Your task to perform on an android device: Open Chrome and go to the settings page Image 0: 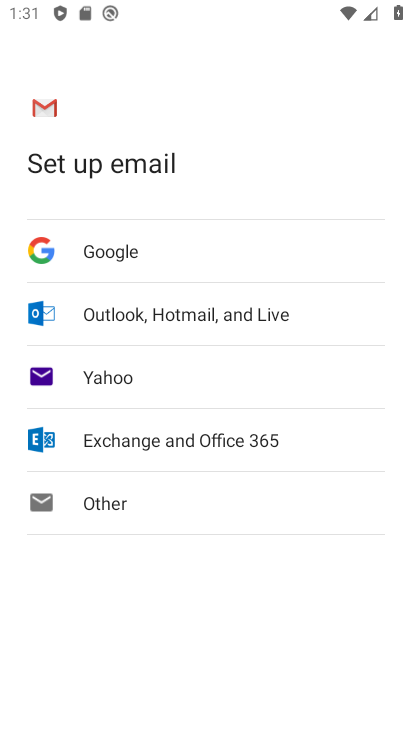
Step 0: press home button
Your task to perform on an android device: Open Chrome and go to the settings page Image 1: 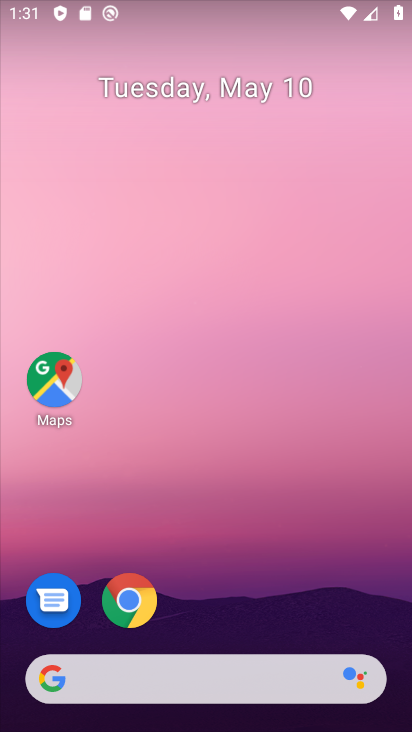
Step 1: click (133, 626)
Your task to perform on an android device: Open Chrome and go to the settings page Image 2: 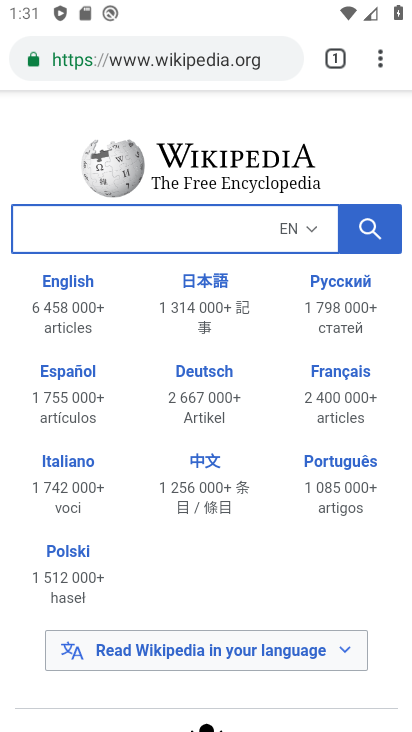
Step 2: click (390, 67)
Your task to perform on an android device: Open Chrome and go to the settings page Image 3: 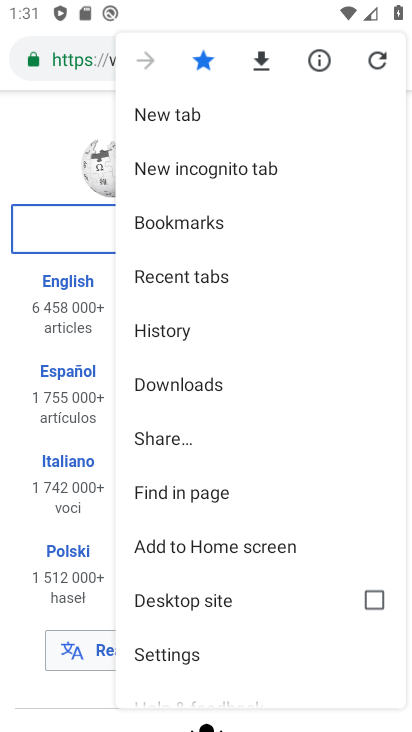
Step 3: drag from (250, 600) to (236, 475)
Your task to perform on an android device: Open Chrome and go to the settings page Image 4: 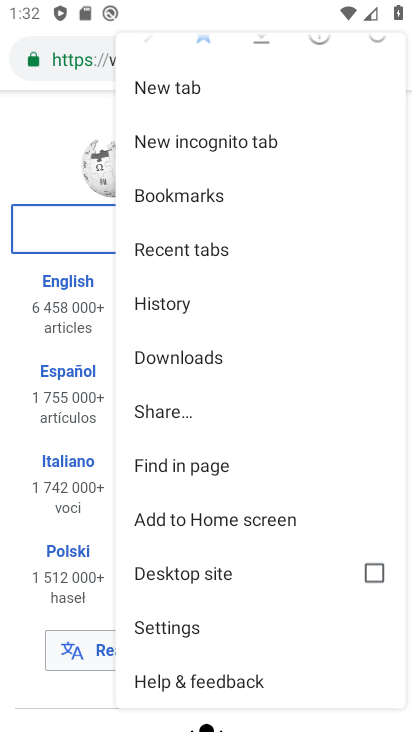
Step 4: click (220, 620)
Your task to perform on an android device: Open Chrome and go to the settings page Image 5: 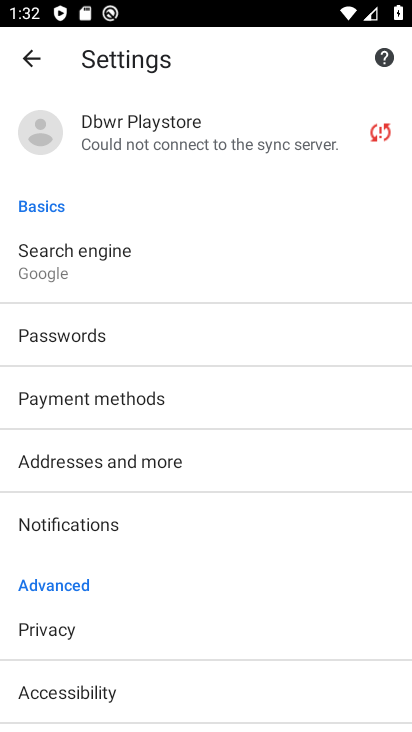
Step 5: task complete